Your task to perform on an android device: clear all cookies in the chrome app Image 0: 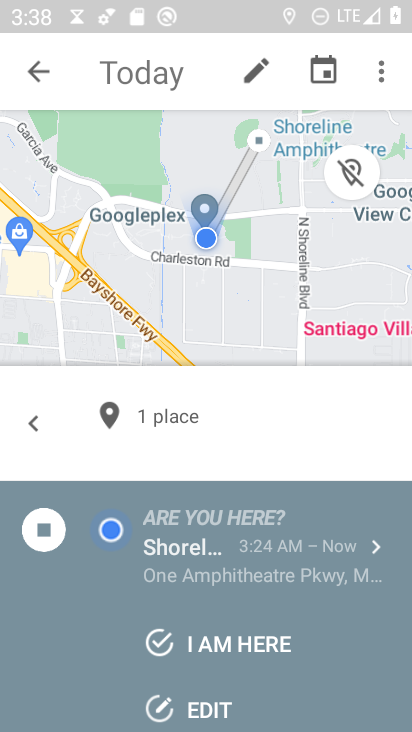
Step 0: press home button
Your task to perform on an android device: clear all cookies in the chrome app Image 1: 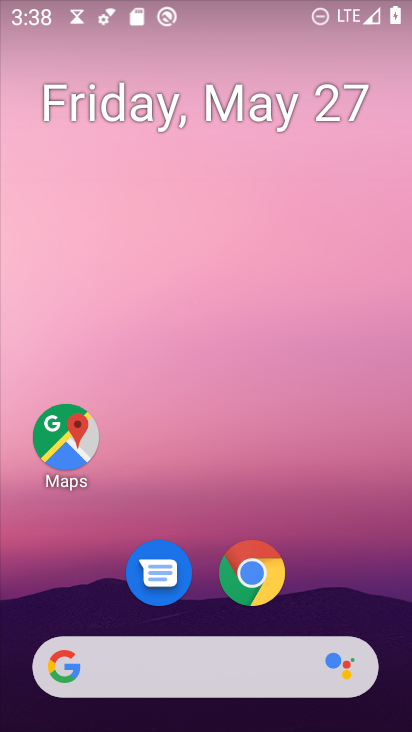
Step 1: click (253, 576)
Your task to perform on an android device: clear all cookies in the chrome app Image 2: 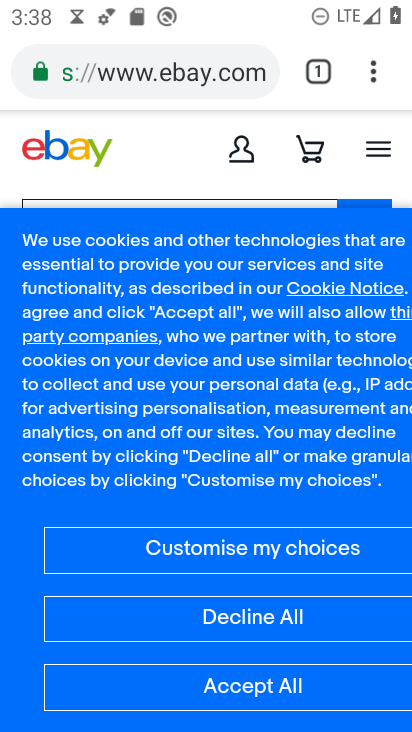
Step 2: click (371, 65)
Your task to perform on an android device: clear all cookies in the chrome app Image 3: 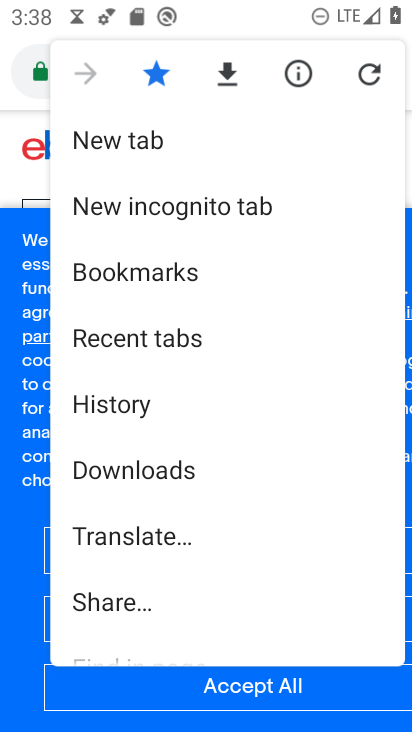
Step 3: click (190, 408)
Your task to perform on an android device: clear all cookies in the chrome app Image 4: 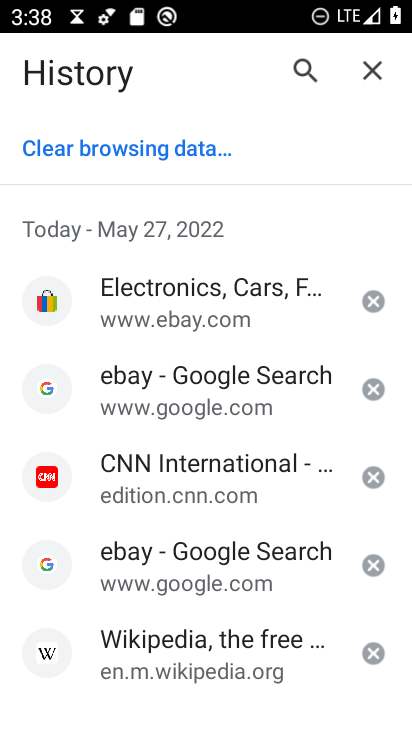
Step 4: click (80, 149)
Your task to perform on an android device: clear all cookies in the chrome app Image 5: 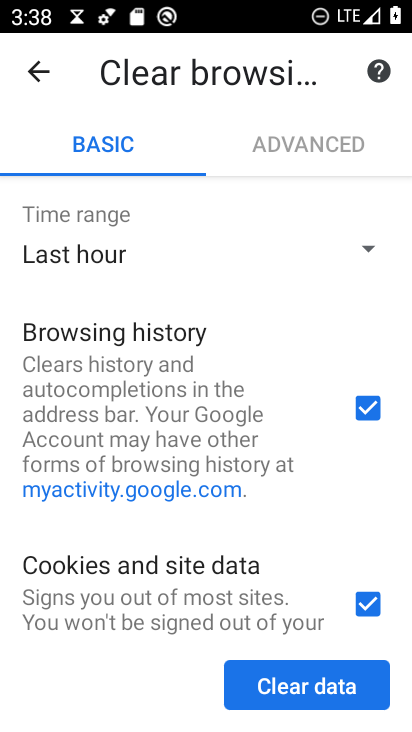
Step 5: click (361, 454)
Your task to perform on an android device: clear all cookies in the chrome app Image 6: 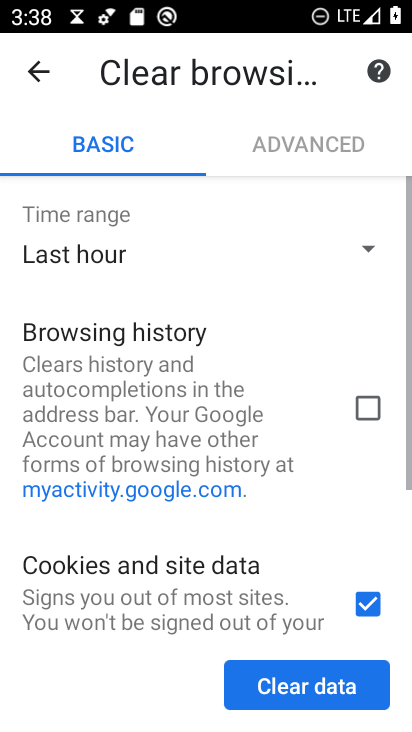
Step 6: drag from (296, 592) to (400, 68)
Your task to perform on an android device: clear all cookies in the chrome app Image 7: 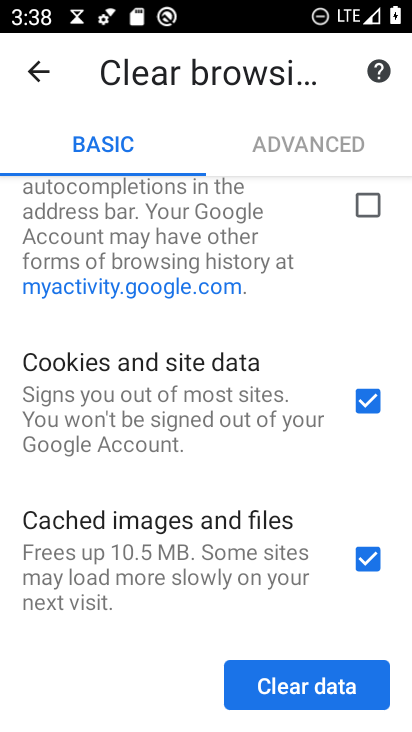
Step 7: click (310, 545)
Your task to perform on an android device: clear all cookies in the chrome app Image 8: 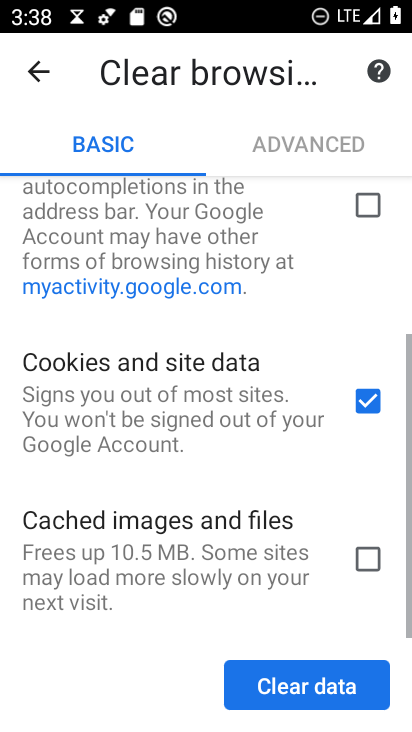
Step 8: click (300, 689)
Your task to perform on an android device: clear all cookies in the chrome app Image 9: 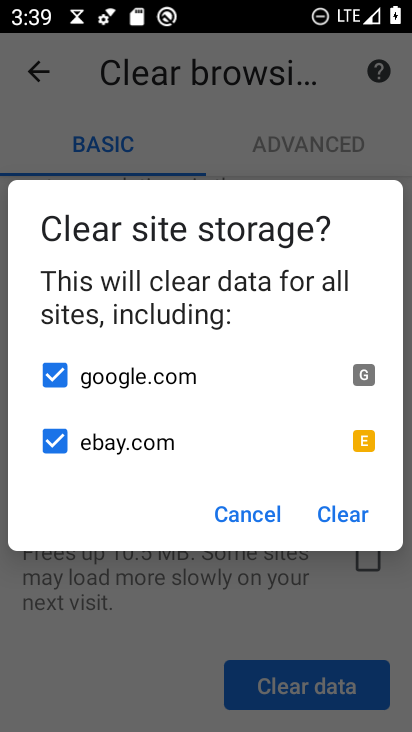
Step 9: click (333, 510)
Your task to perform on an android device: clear all cookies in the chrome app Image 10: 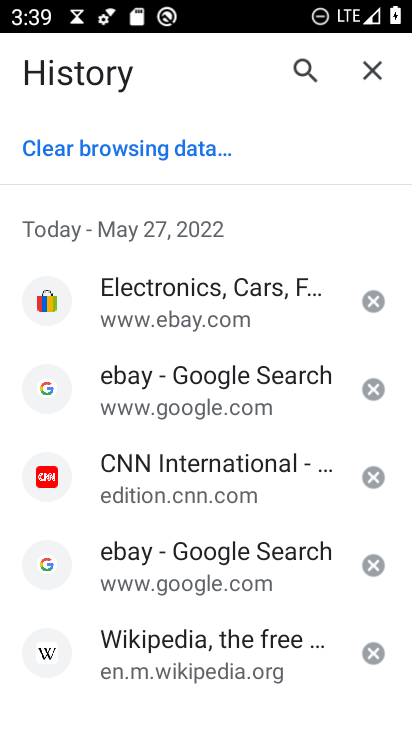
Step 10: task complete